Your task to perform on an android device: turn on translation in the chrome app Image 0: 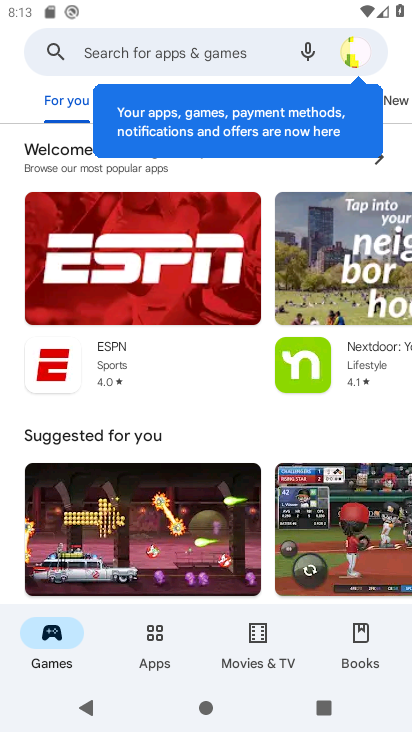
Step 0: press home button
Your task to perform on an android device: turn on translation in the chrome app Image 1: 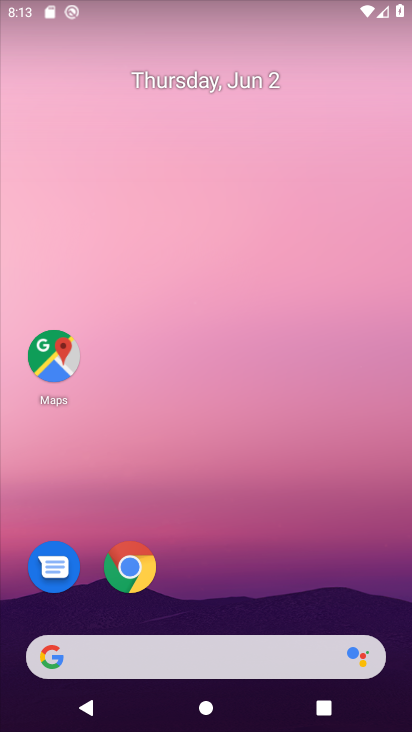
Step 1: click (141, 574)
Your task to perform on an android device: turn on translation in the chrome app Image 2: 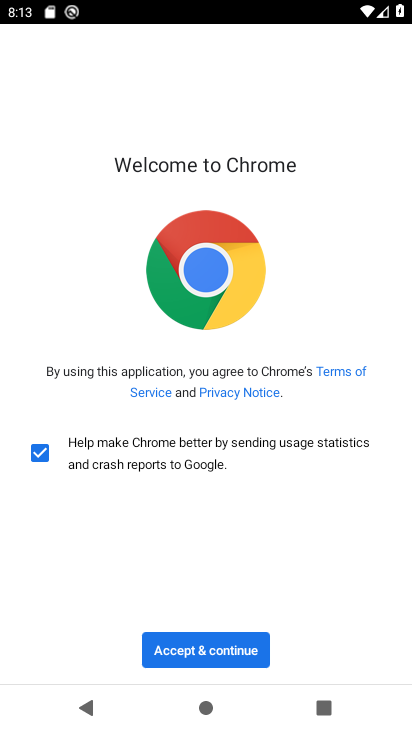
Step 2: click (257, 657)
Your task to perform on an android device: turn on translation in the chrome app Image 3: 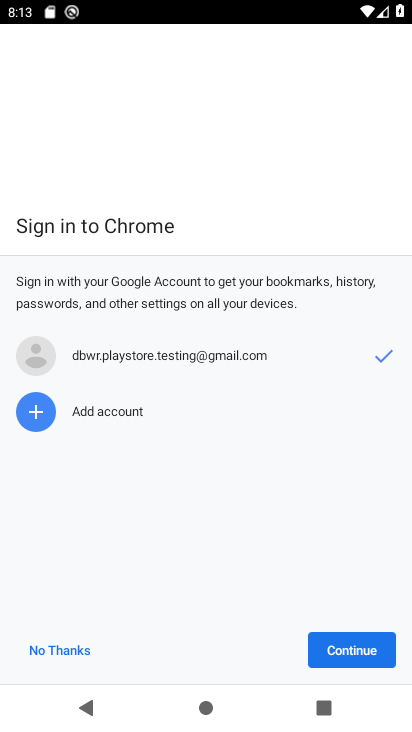
Step 3: click (354, 667)
Your task to perform on an android device: turn on translation in the chrome app Image 4: 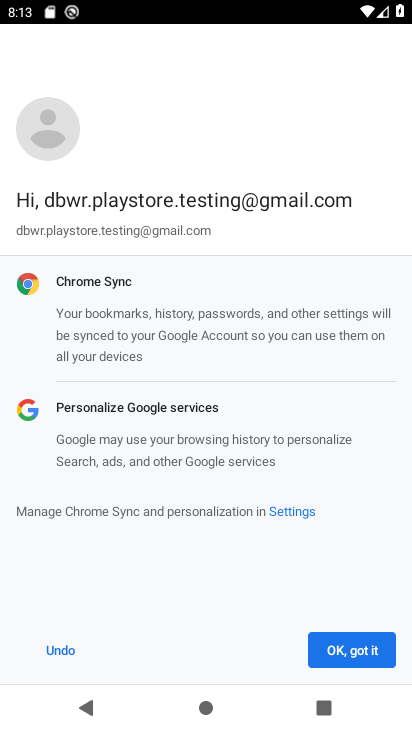
Step 4: click (377, 659)
Your task to perform on an android device: turn on translation in the chrome app Image 5: 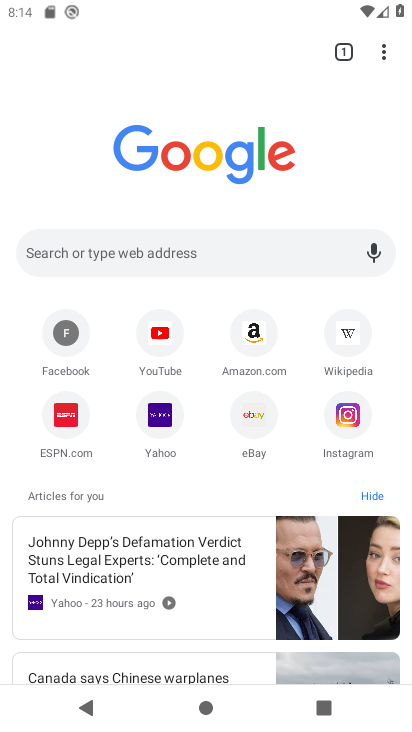
Step 5: drag from (392, 65) to (259, 432)
Your task to perform on an android device: turn on translation in the chrome app Image 6: 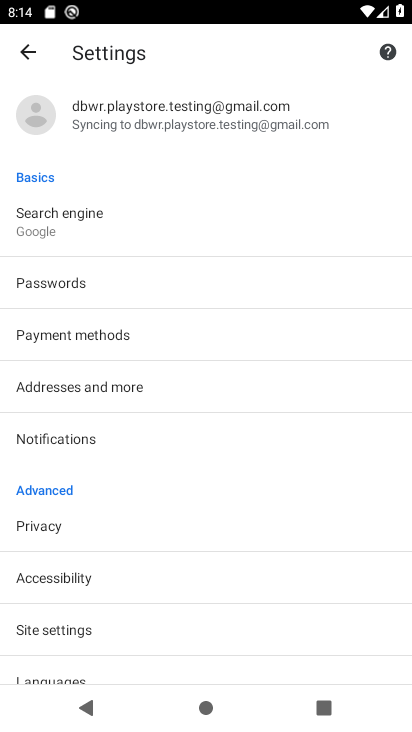
Step 6: drag from (185, 612) to (243, 360)
Your task to perform on an android device: turn on translation in the chrome app Image 7: 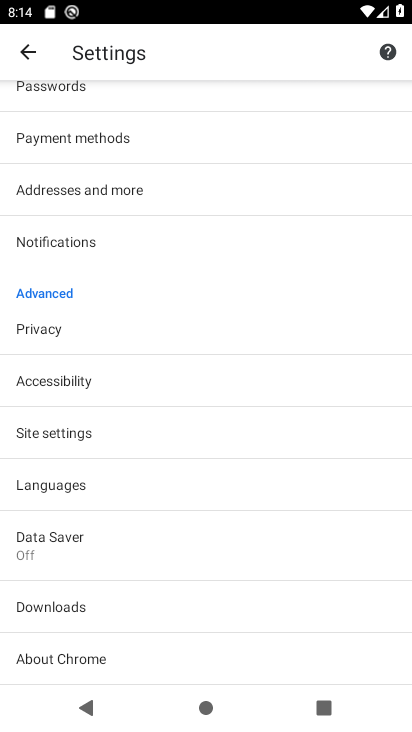
Step 7: click (77, 487)
Your task to perform on an android device: turn on translation in the chrome app Image 8: 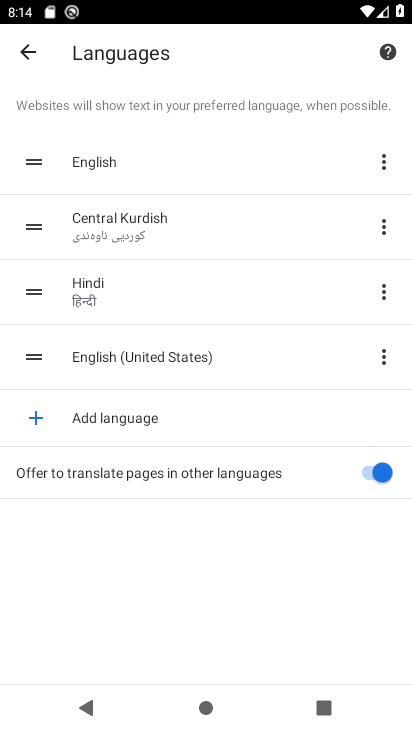
Step 8: task complete